Your task to perform on an android device: See recent photos Image 0: 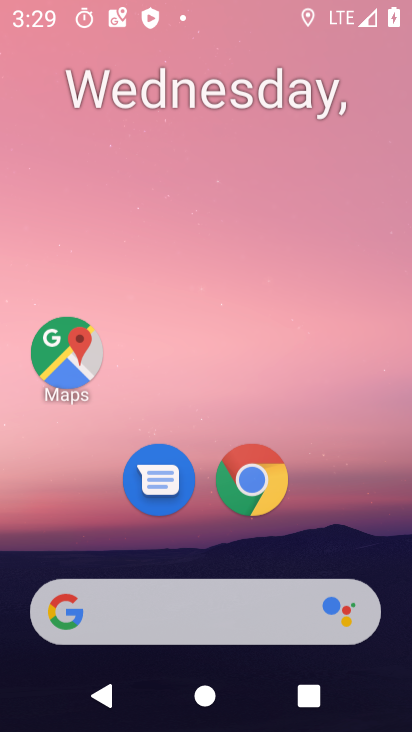
Step 0: press home button
Your task to perform on an android device: See recent photos Image 1: 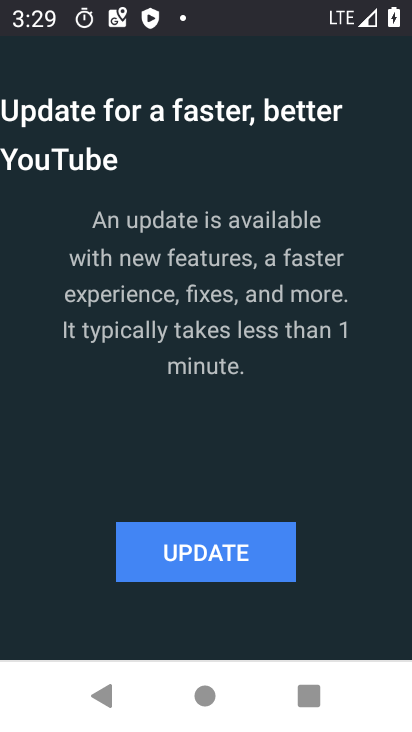
Step 1: click (192, 106)
Your task to perform on an android device: See recent photos Image 2: 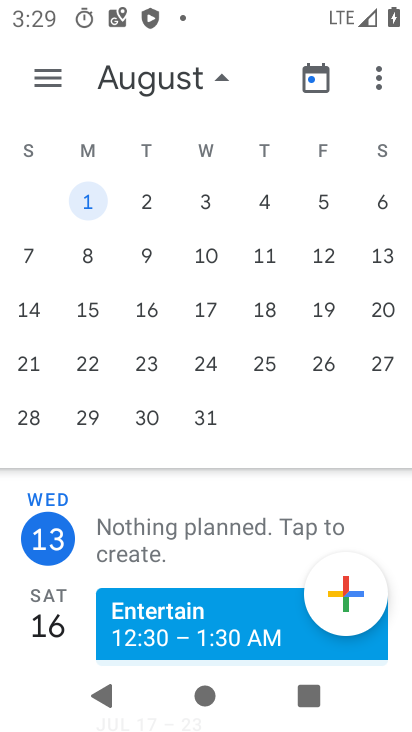
Step 2: press home button
Your task to perform on an android device: See recent photos Image 3: 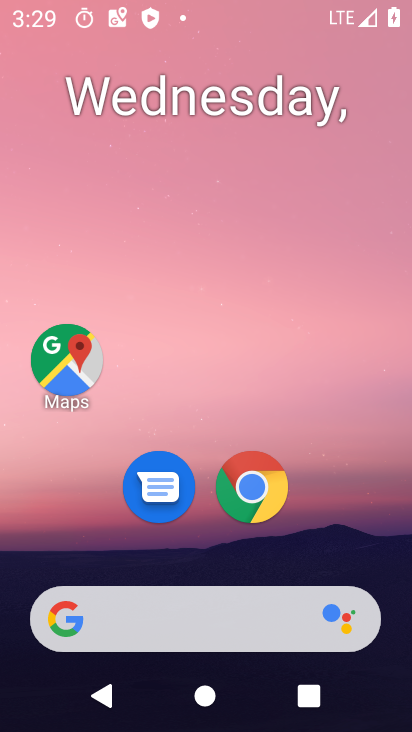
Step 3: press home button
Your task to perform on an android device: See recent photos Image 4: 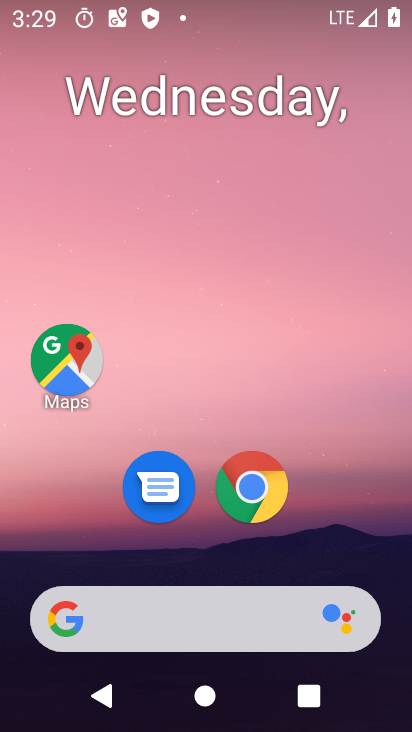
Step 4: drag from (259, 605) to (240, 203)
Your task to perform on an android device: See recent photos Image 5: 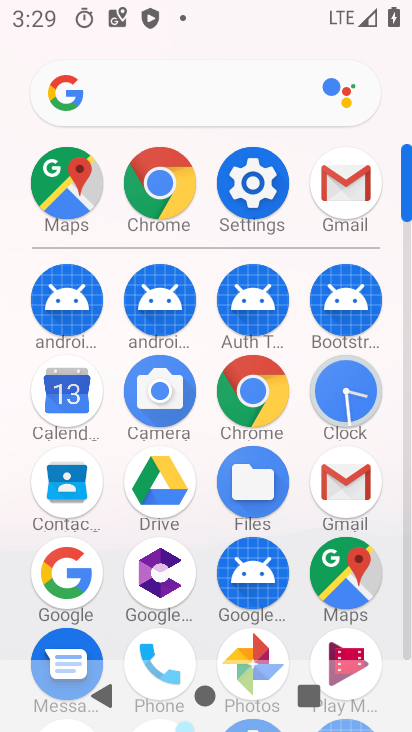
Step 5: drag from (228, 480) to (242, 263)
Your task to perform on an android device: See recent photos Image 6: 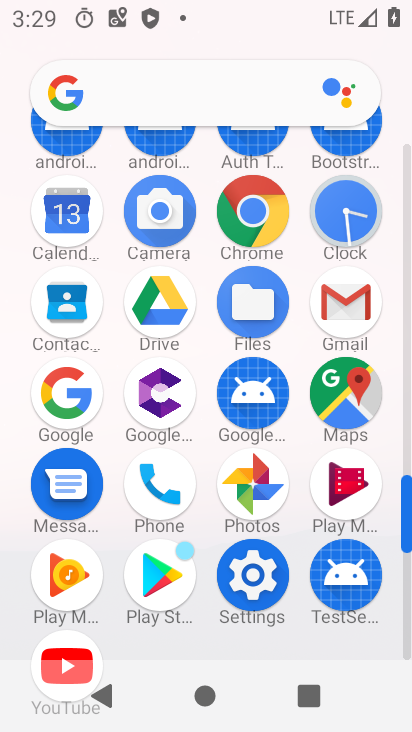
Step 6: click (242, 522)
Your task to perform on an android device: See recent photos Image 7: 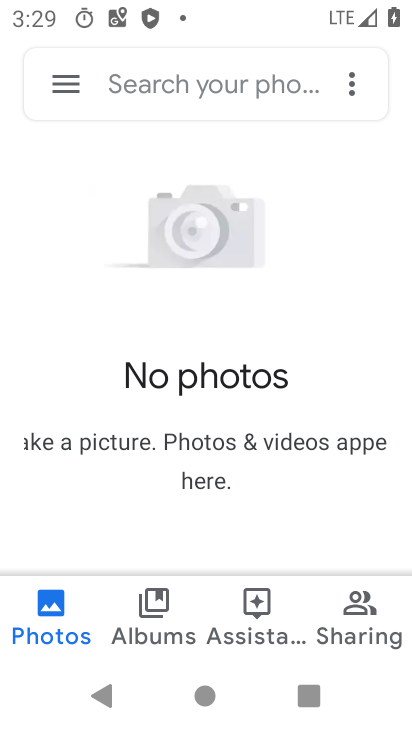
Step 7: task complete